Your task to perform on an android device: check data usage Image 0: 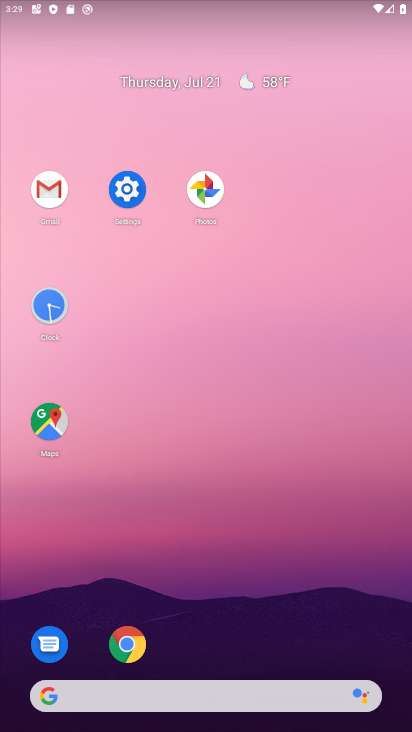
Step 0: click (123, 181)
Your task to perform on an android device: check data usage Image 1: 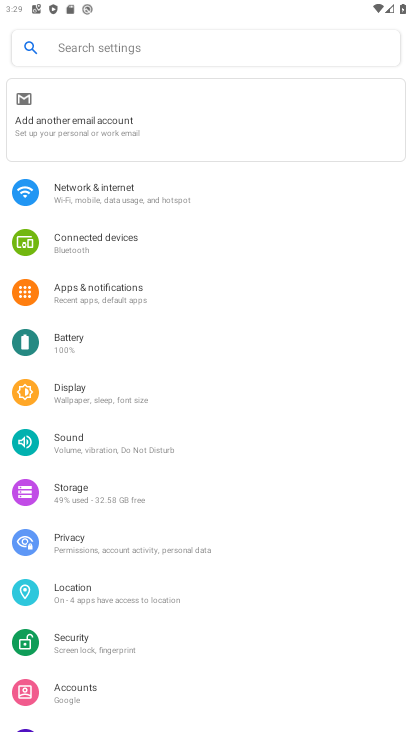
Step 1: click (140, 187)
Your task to perform on an android device: check data usage Image 2: 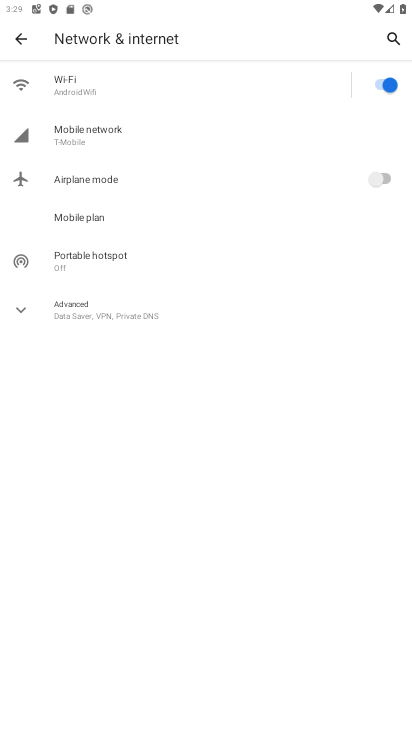
Step 2: click (115, 128)
Your task to perform on an android device: check data usage Image 3: 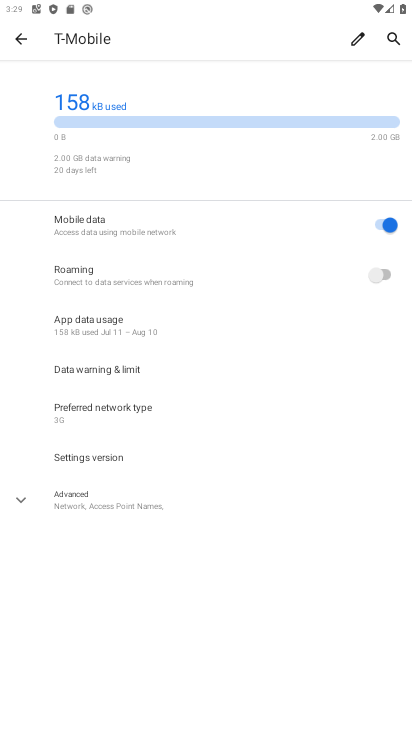
Step 3: task complete